Your task to perform on an android device: Open Yahoo.com Image 0: 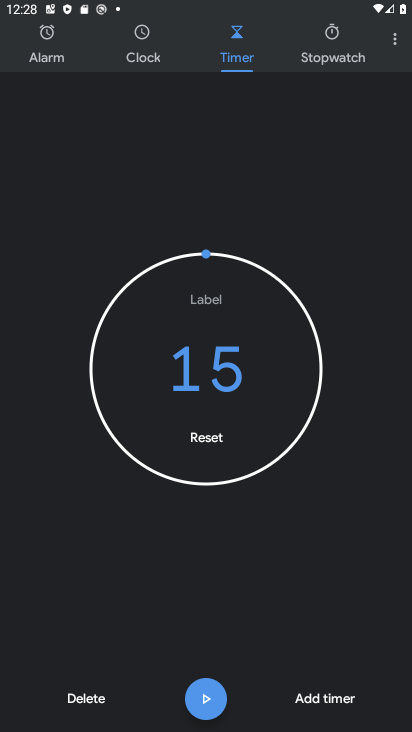
Step 0: press home button
Your task to perform on an android device: Open Yahoo.com Image 1: 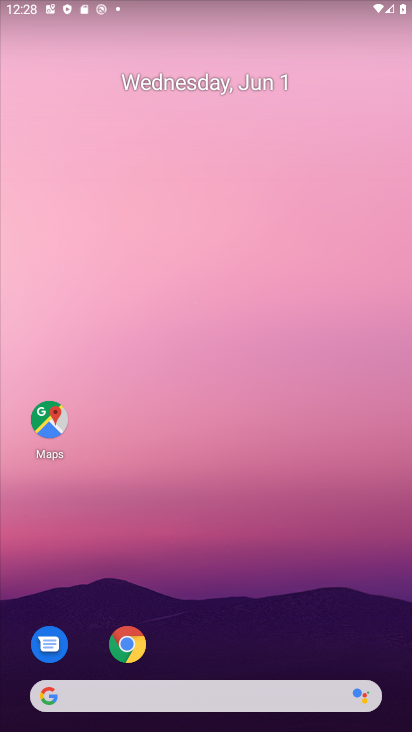
Step 1: drag from (353, 628) to (327, 199)
Your task to perform on an android device: Open Yahoo.com Image 2: 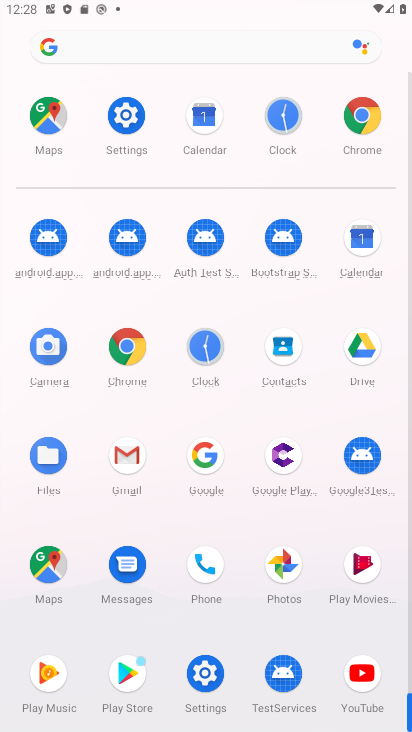
Step 2: click (140, 346)
Your task to perform on an android device: Open Yahoo.com Image 3: 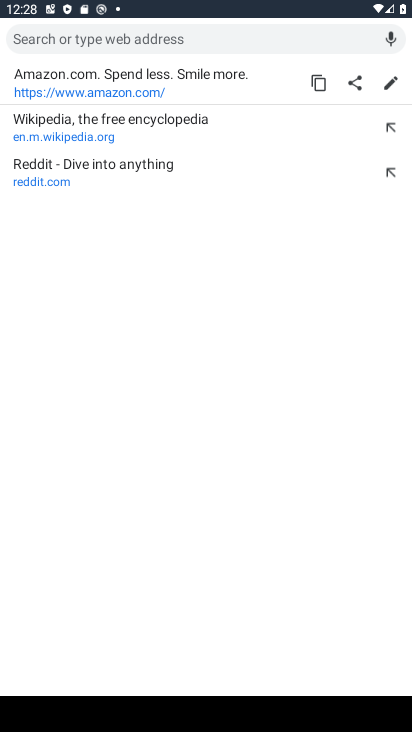
Step 3: click (186, 43)
Your task to perform on an android device: Open Yahoo.com Image 4: 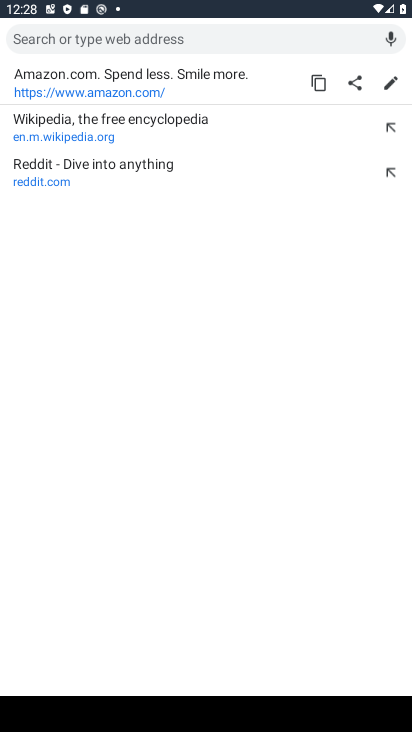
Step 4: type "yahoo.com"
Your task to perform on an android device: Open Yahoo.com Image 5: 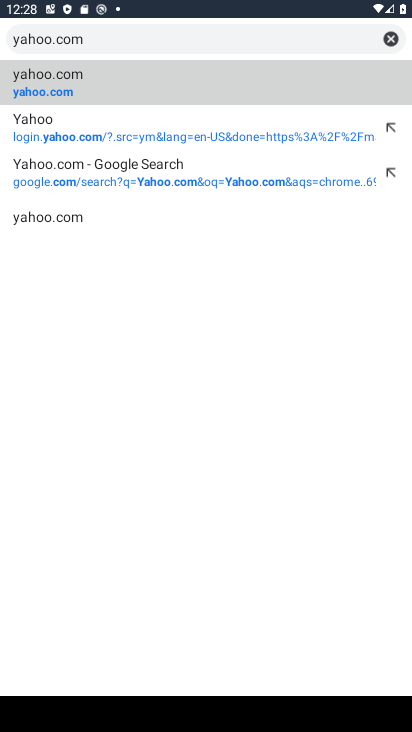
Step 5: click (172, 83)
Your task to perform on an android device: Open Yahoo.com Image 6: 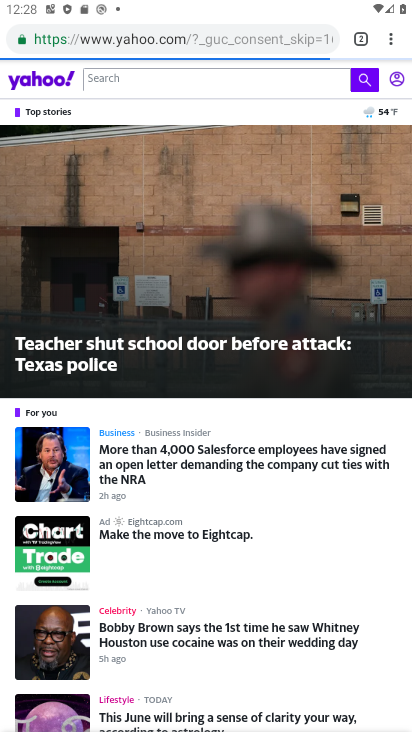
Step 6: task complete